Your task to perform on an android device: turn smart compose on in the gmail app Image 0: 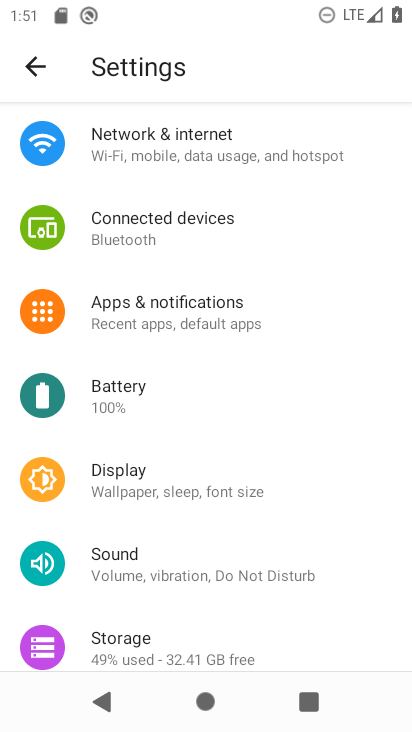
Step 0: press home button
Your task to perform on an android device: turn smart compose on in the gmail app Image 1: 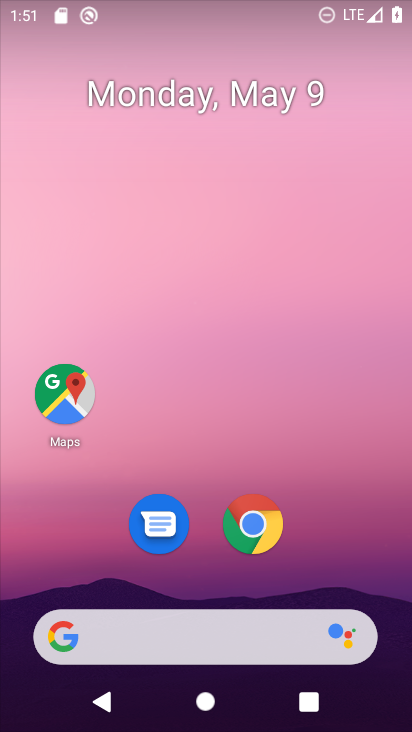
Step 1: drag from (207, 479) to (129, 14)
Your task to perform on an android device: turn smart compose on in the gmail app Image 2: 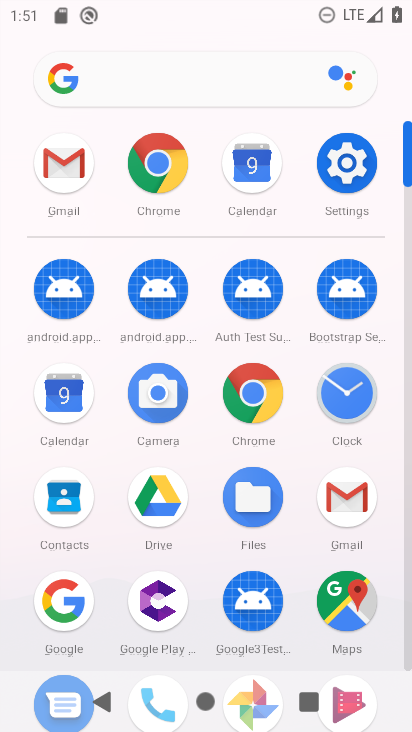
Step 2: click (66, 162)
Your task to perform on an android device: turn smart compose on in the gmail app Image 3: 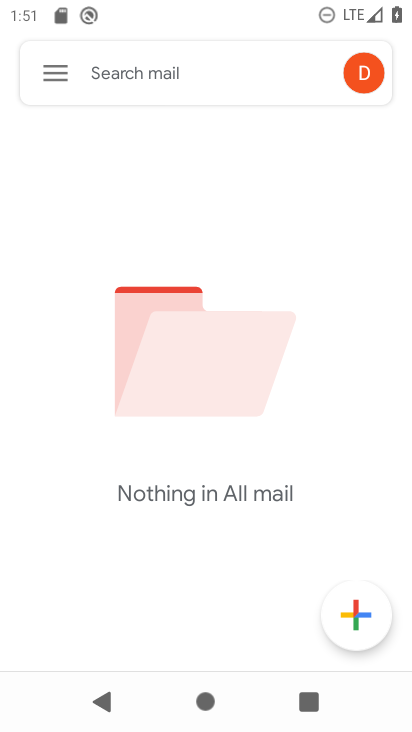
Step 3: click (55, 69)
Your task to perform on an android device: turn smart compose on in the gmail app Image 4: 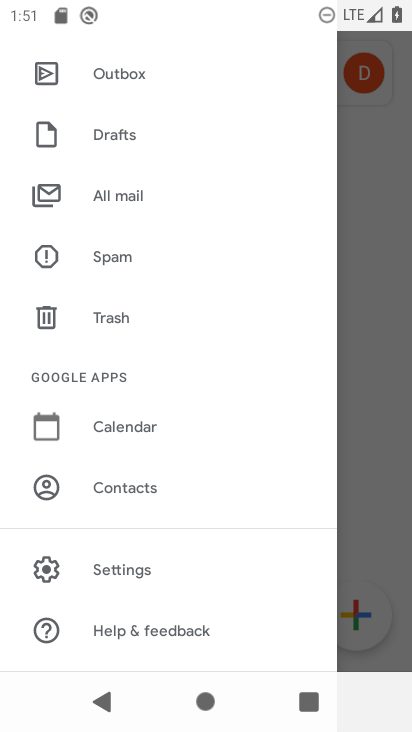
Step 4: click (140, 560)
Your task to perform on an android device: turn smart compose on in the gmail app Image 5: 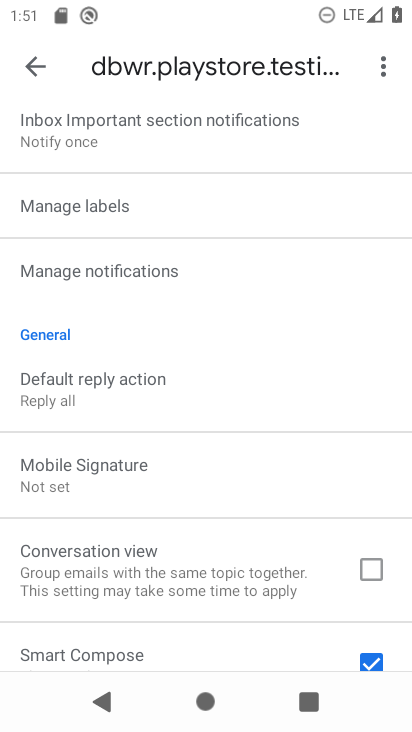
Step 5: task complete